Your task to perform on an android device: toggle priority inbox in the gmail app Image 0: 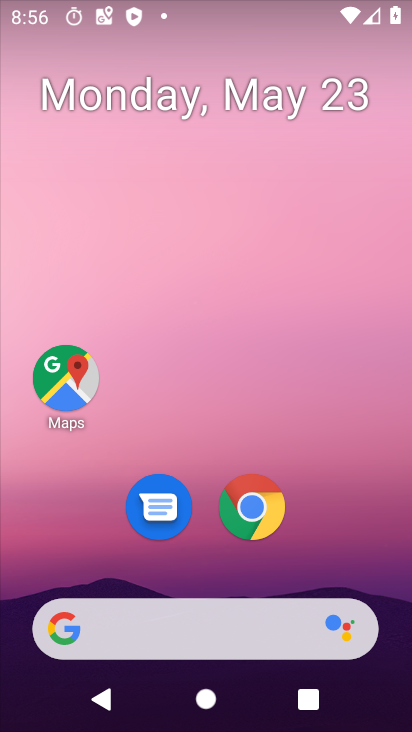
Step 0: drag from (320, 504) to (316, 7)
Your task to perform on an android device: toggle priority inbox in the gmail app Image 1: 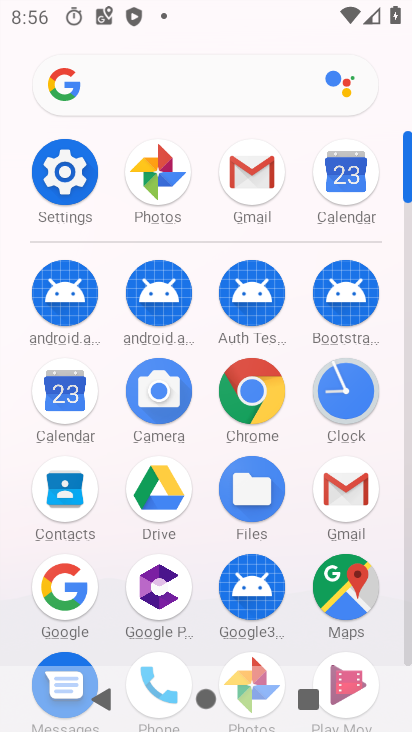
Step 1: click (259, 182)
Your task to perform on an android device: toggle priority inbox in the gmail app Image 2: 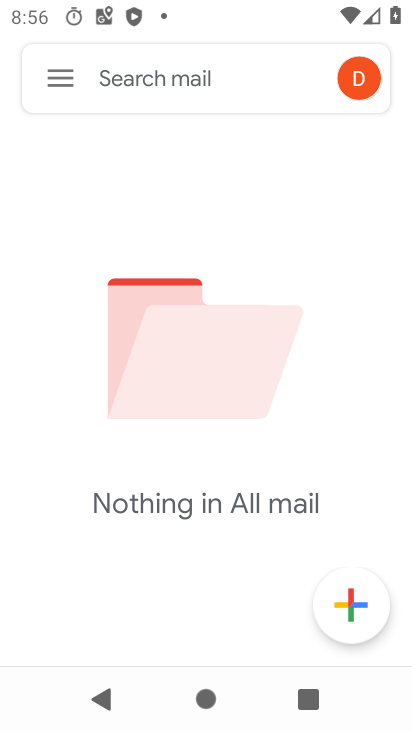
Step 2: click (55, 67)
Your task to perform on an android device: toggle priority inbox in the gmail app Image 3: 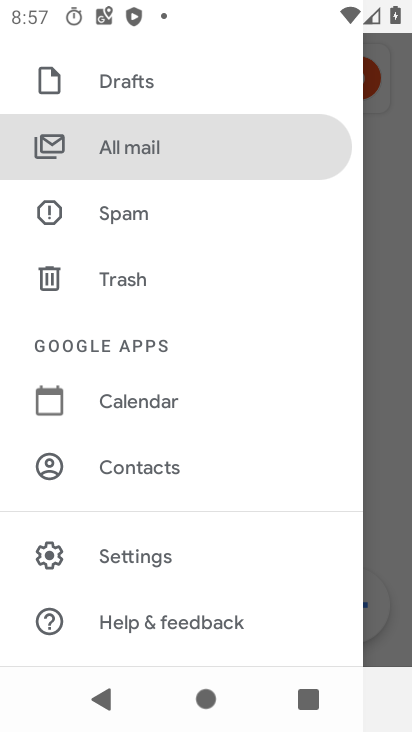
Step 3: click (151, 560)
Your task to perform on an android device: toggle priority inbox in the gmail app Image 4: 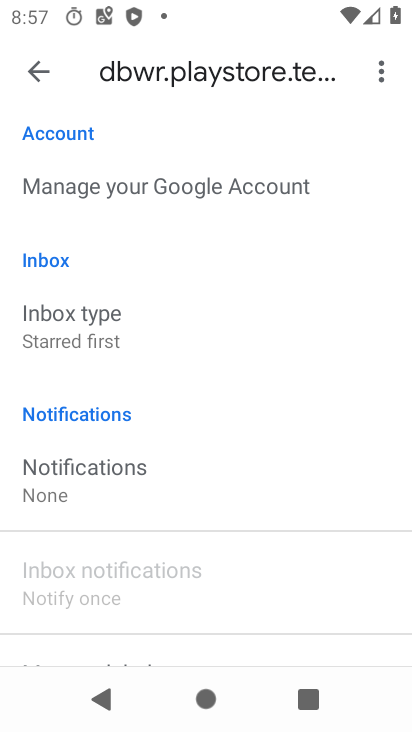
Step 4: click (72, 317)
Your task to perform on an android device: toggle priority inbox in the gmail app Image 5: 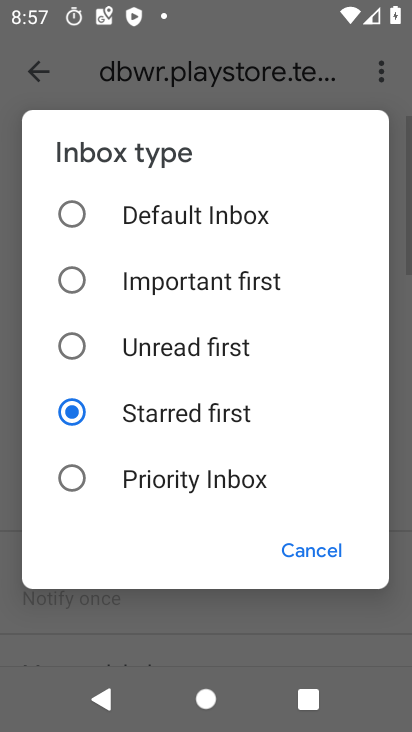
Step 5: click (88, 225)
Your task to perform on an android device: toggle priority inbox in the gmail app Image 6: 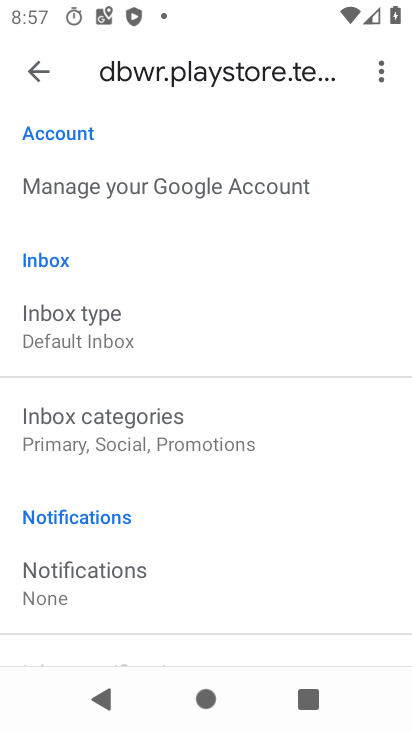
Step 6: task complete